Your task to perform on an android device: Open Youtube and go to the subscriptions tab Image 0: 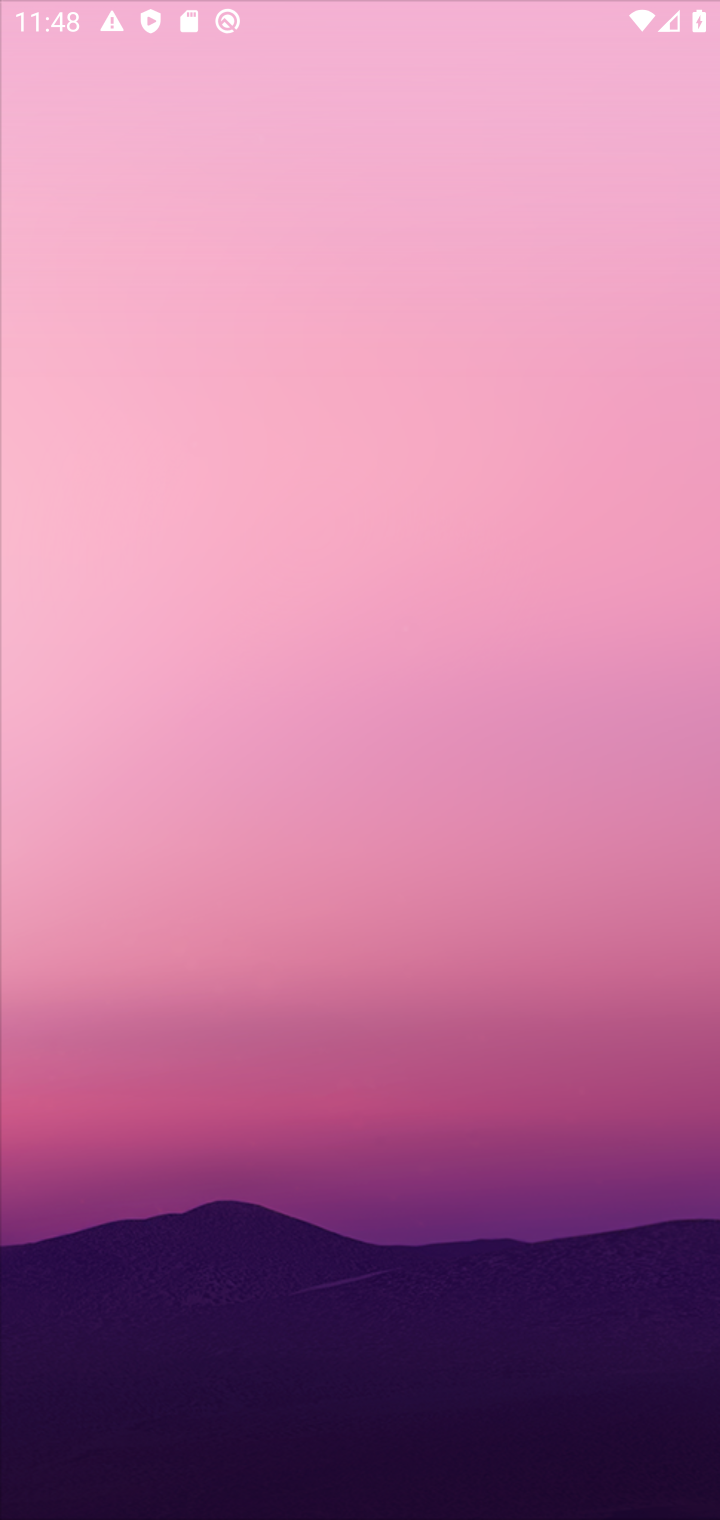
Step 0: click (630, 1206)
Your task to perform on an android device: Open Youtube and go to the subscriptions tab Image 1: 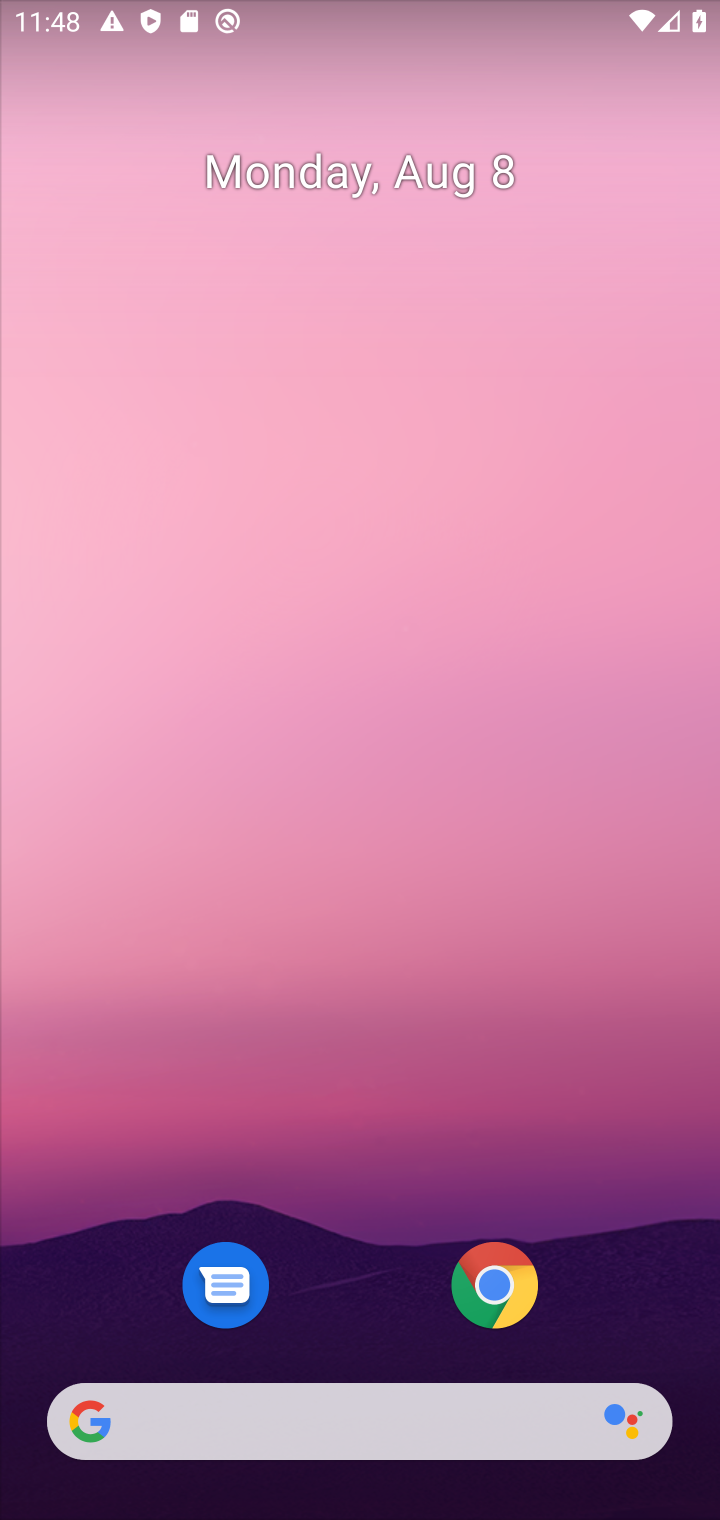
Step 1: drag from (340, 1326) to (379, 552)
Your task to perform on an android device: Open Youtube and go to the subscriptions tab Image 2: 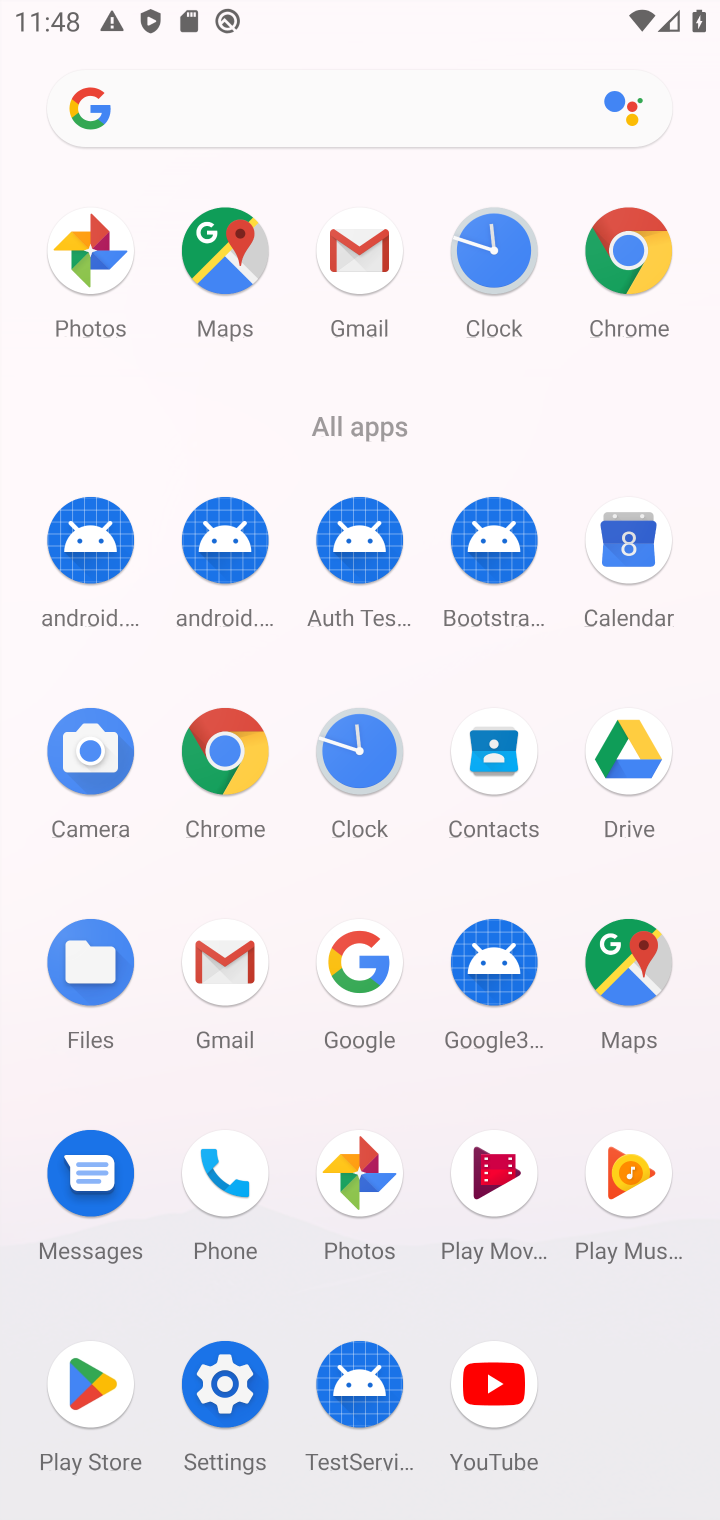
Step 2: click (481, 1395)
Your task to perform on an android device: Open Youtube and go to the subscriptions tab Image 3: 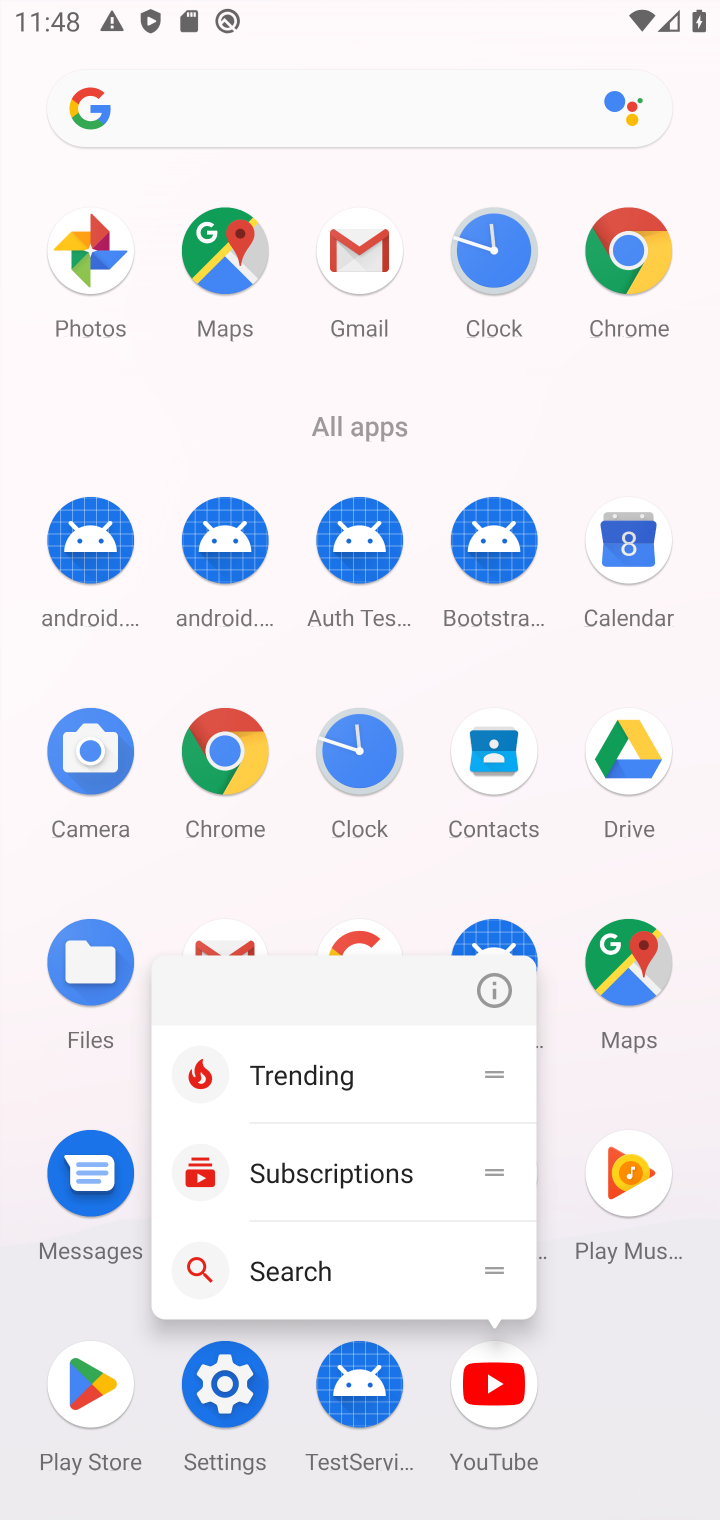
Step 3: click (502, 989)
Your task to perform on an android device: Open Youtube and go to the subscriptions tab Image 4: 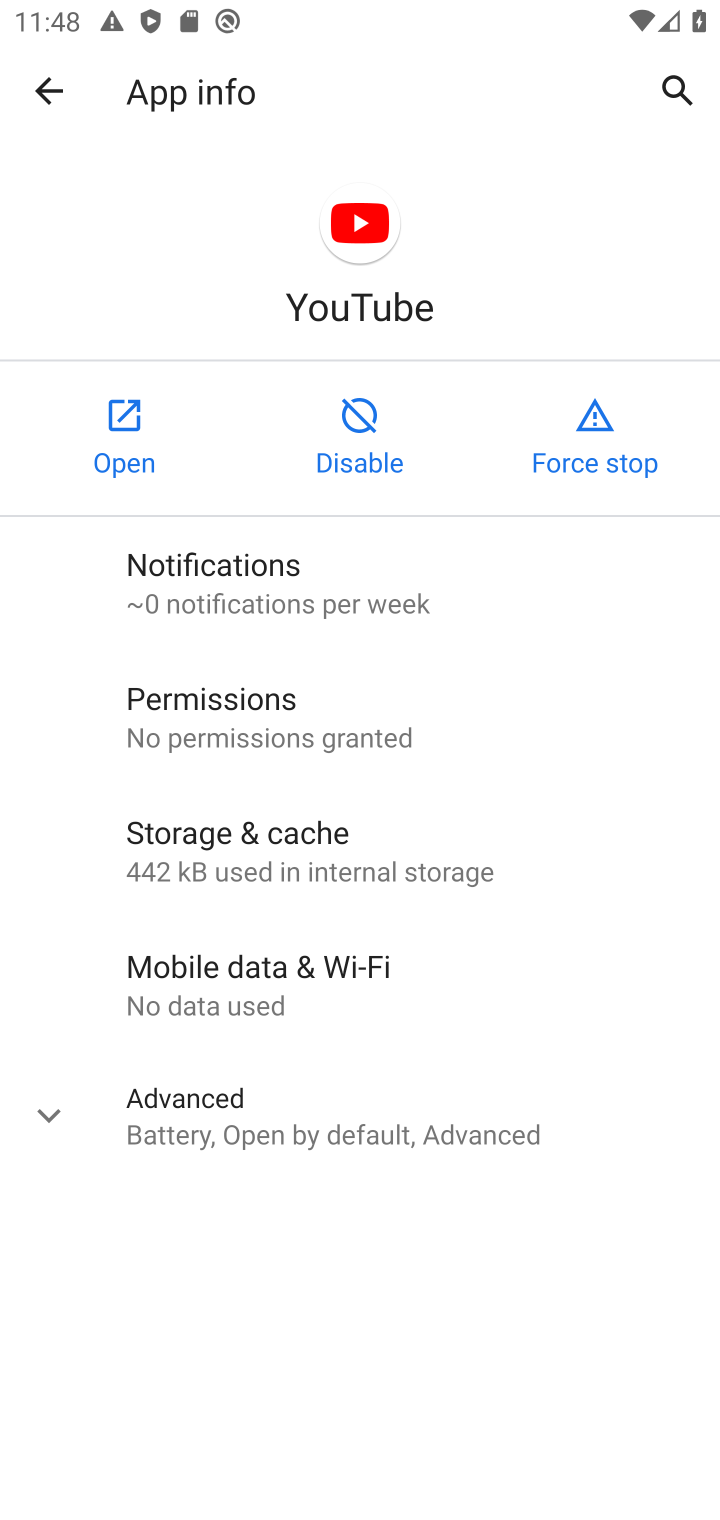
Step 4: click (88, 406)
Your task to perform on an android device: Open Youtube and go to the subscriptions tab Image 5: 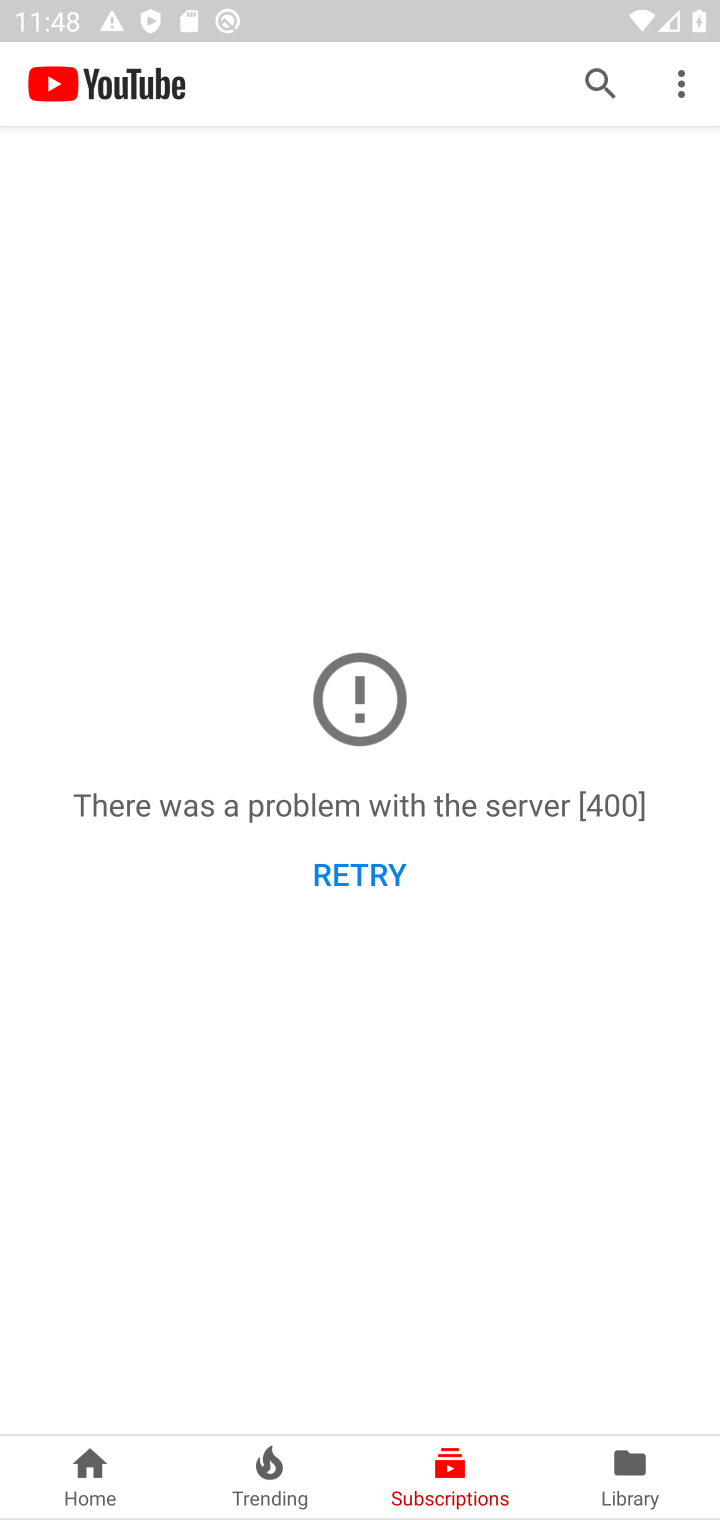
Step 5: drag from (439, 1179) to (505, 918)
Your task to perform on an android device: Open Youtube and go to the subscriptions tab Image 6: 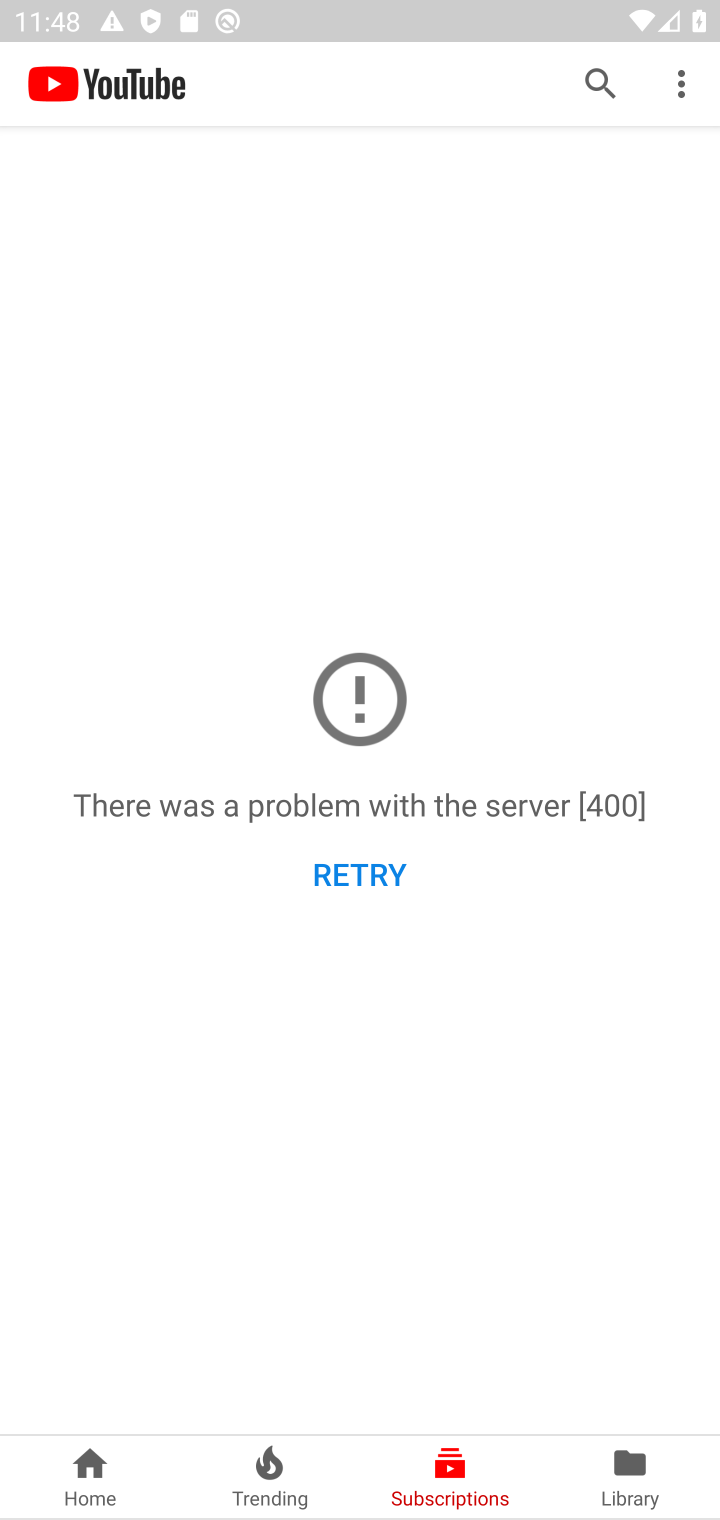
Step 6: drag from (390, 1278) to (382, 817)
Your task to perform on an android device: Open Youtube and go to the subscriptions tab Image 7: 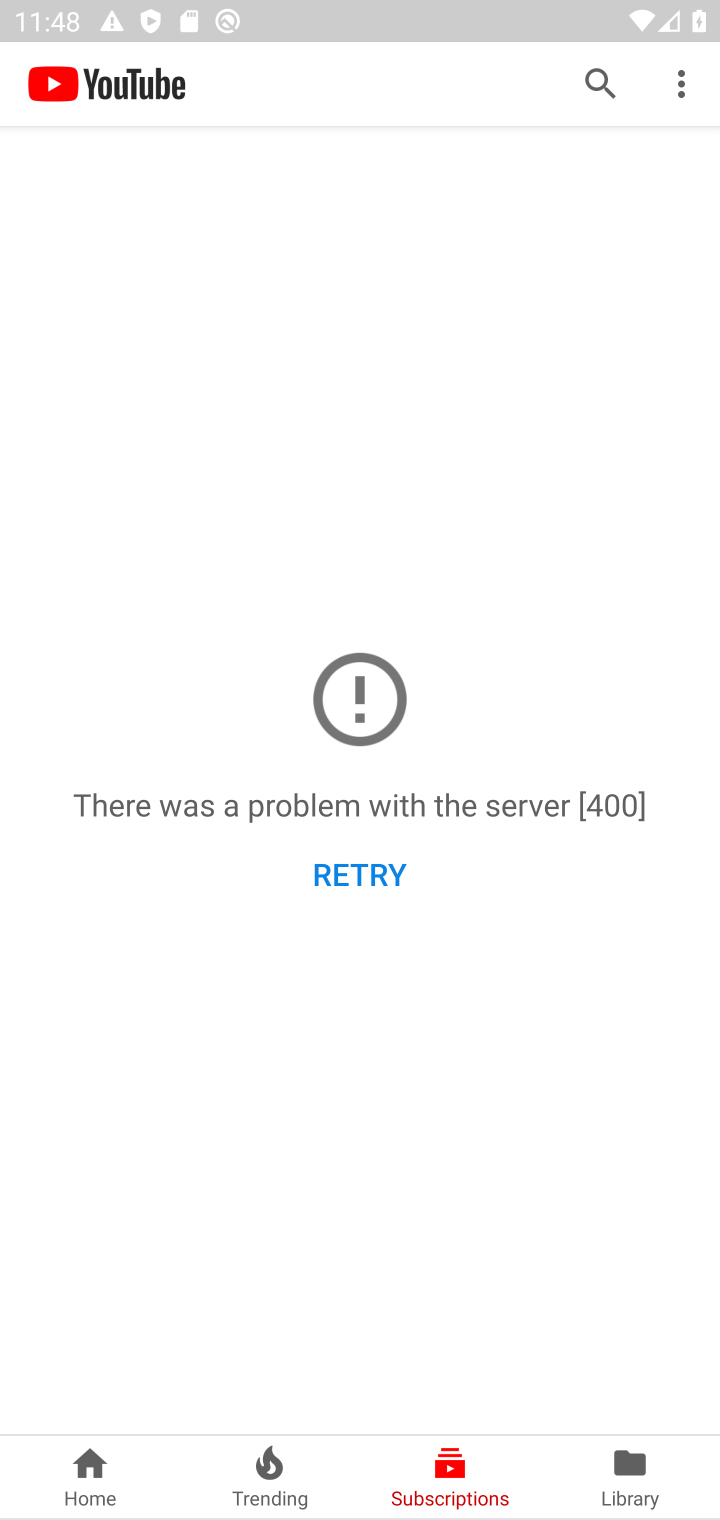
Step 7: click (468, 1476)
Your task to perform on an android device: Open Youtube and go to the subscriptions tab Image 8: 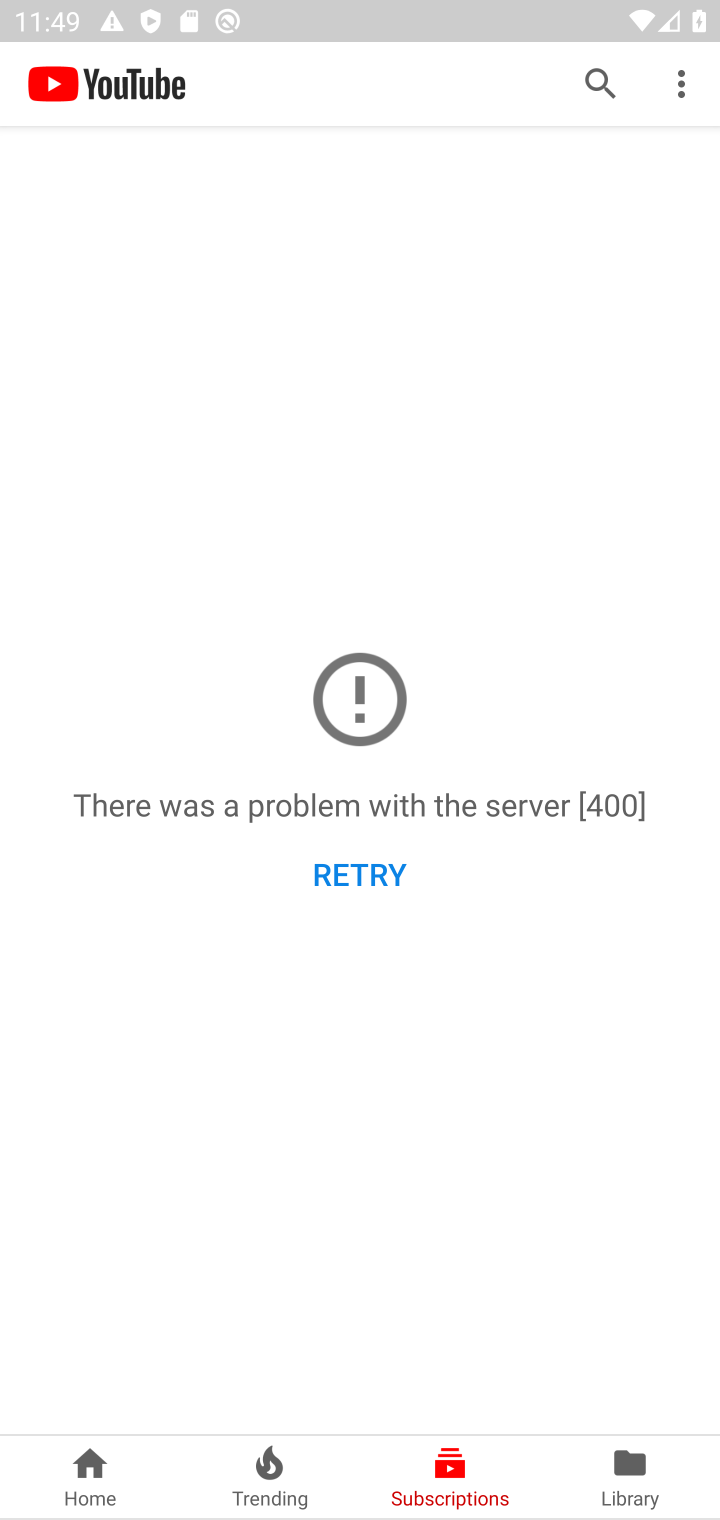
Step 8: task complete